Your task to perform on an android device: show emergency info Image 0: 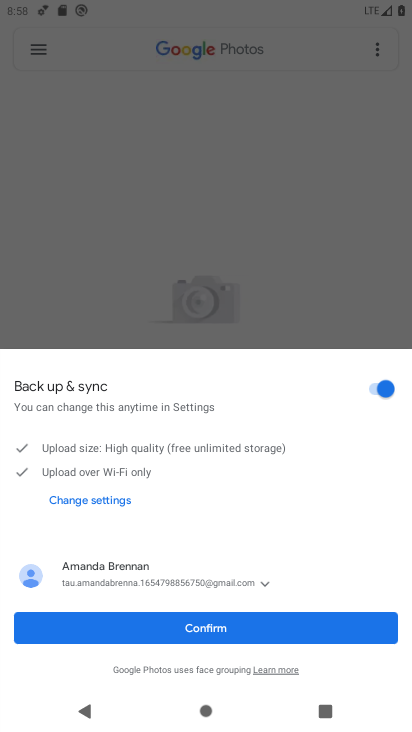
Step 0: press home button
Your task to perform on an android device: show emergency info Image 1: 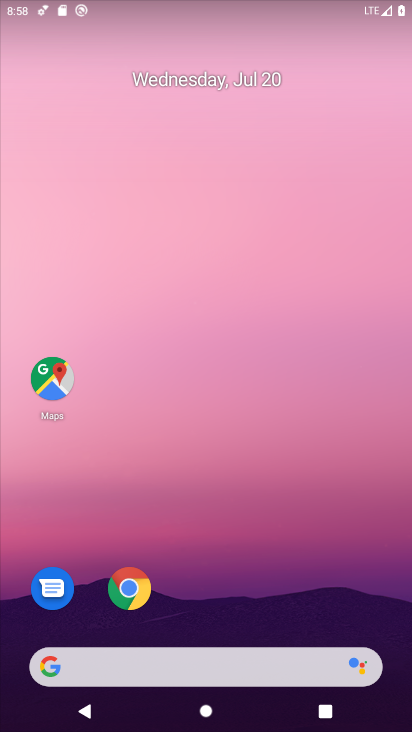
Step 1: drag from (217, 626) to (243, 60)
Your task to perform on an android device: show emergency info Image 2: 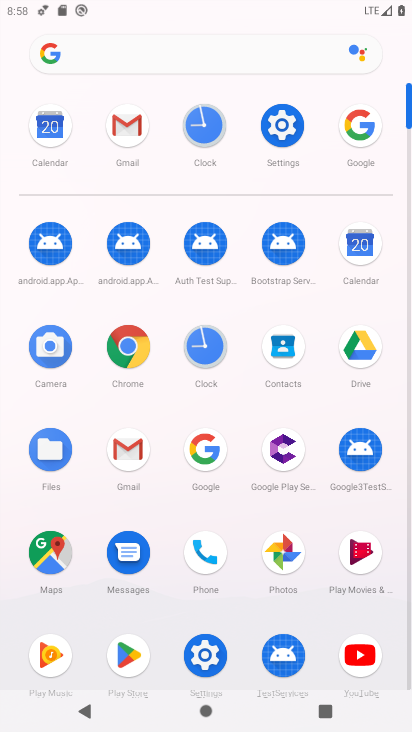
Step 2: click (287, 119)
Your task to perform on an android device: show emergency info Image 3: 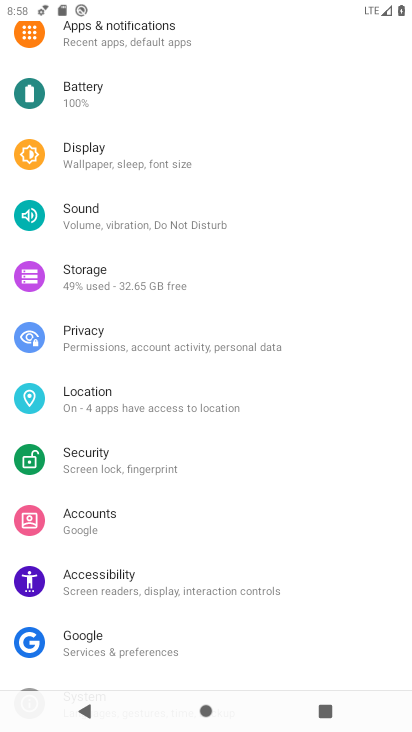
Step 3: drag from (148, 630) to (204, 97)
Your task to perform on an android device: show emergency info Image 4: 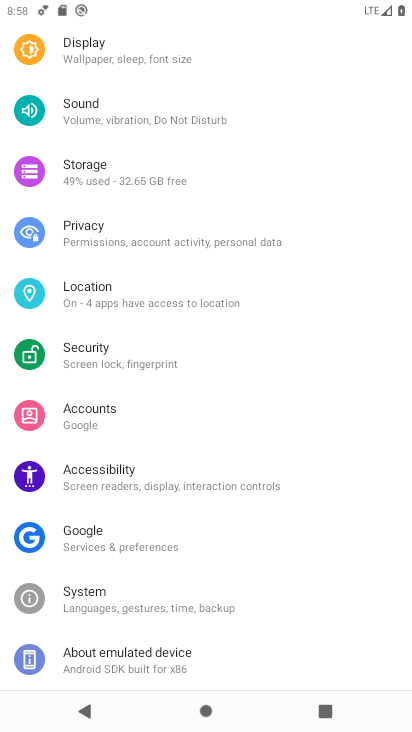
Step 4: click (135, 660)
Your task to perform on an android device: show emergency info Image 5: 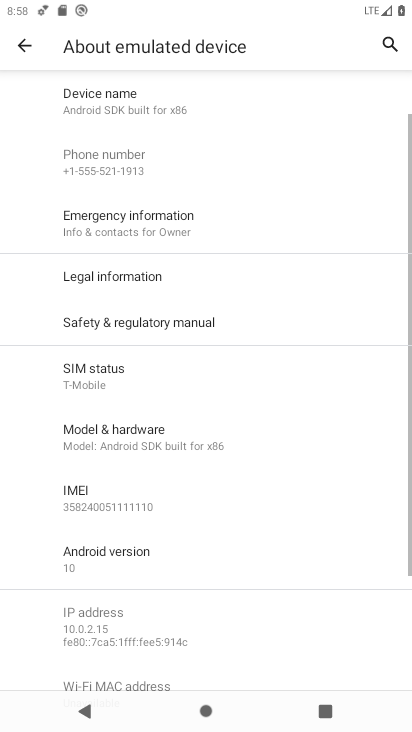
Step 5: click (180, 226)
Your task to perform on an android device: show emergency info Image 6: 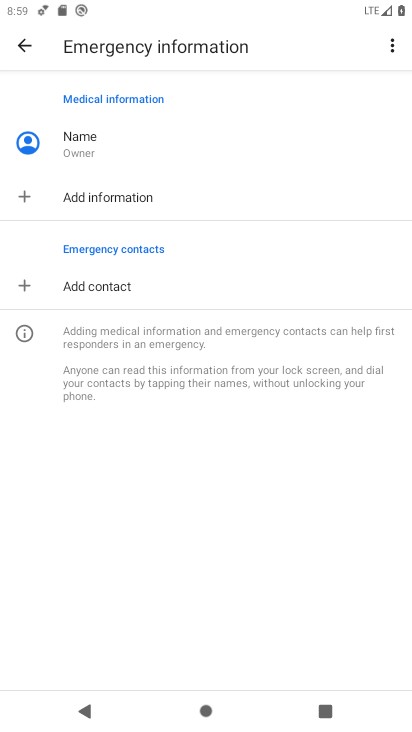
Step 6: task complete